Your task to perform on an android device: turn notification dots off Image 0: 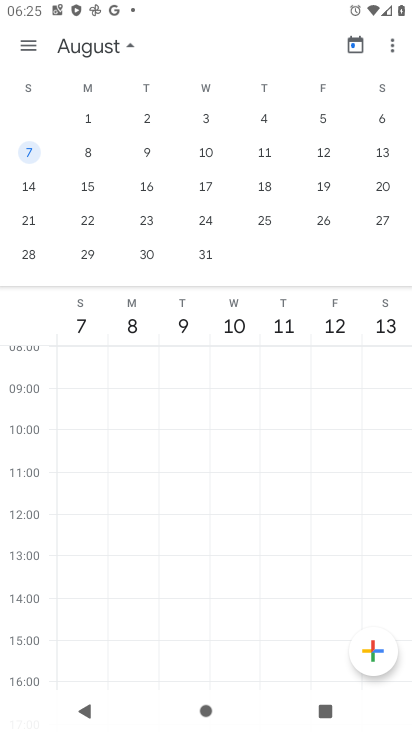
Step 0: press back button
Your task to perform on an android device: turn notification dots off Image 1: 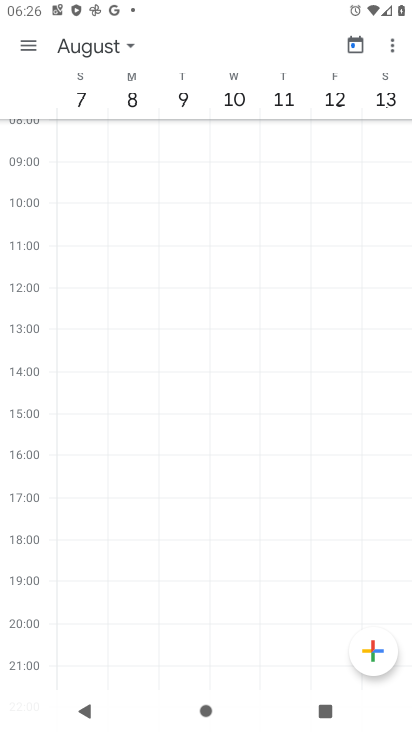
Step 1: press home button
Your task to perform on an android device: turn notification dots off Image 2: 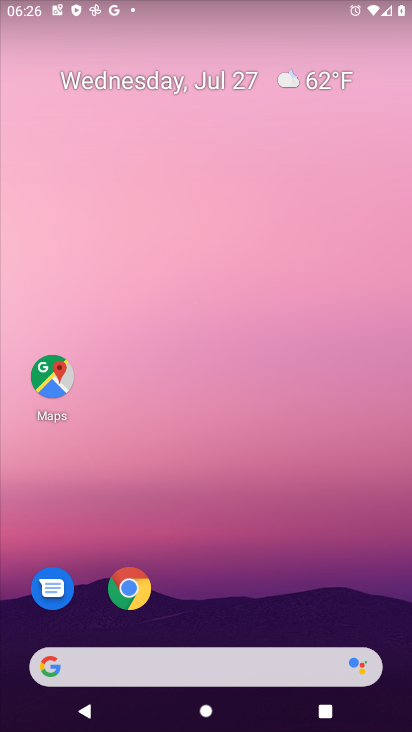
Step 2: drag from (182, 596) to (201, 68)
Your task to perform on an android device: turn notification dots off Image 3: 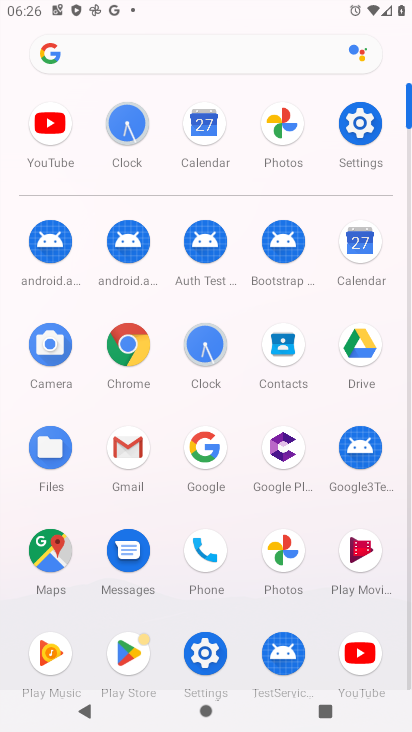
Step 3: click (356, 140)
Your task to perform on an android device: turn notification dots off Image 4: 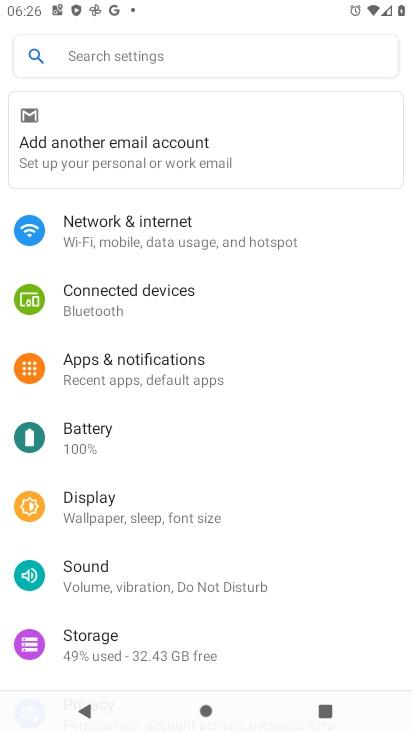
Step 4: click (110, 369)
Your task to perform on an android device: turn notification dots off Image 5: 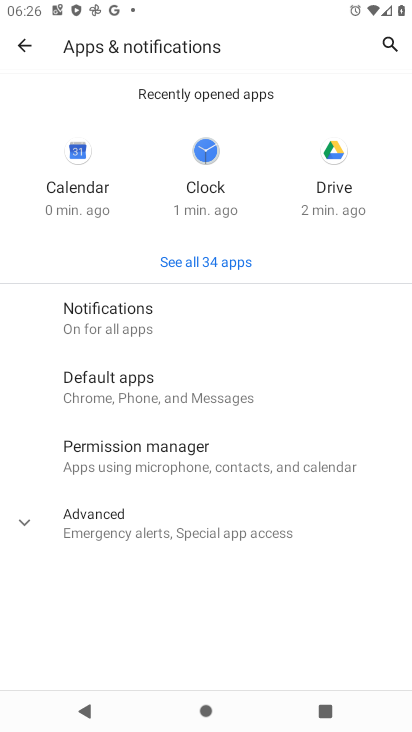
Step 5: click (118, 318)
Your task to perform on an android device: turn notification dots off Image 6: 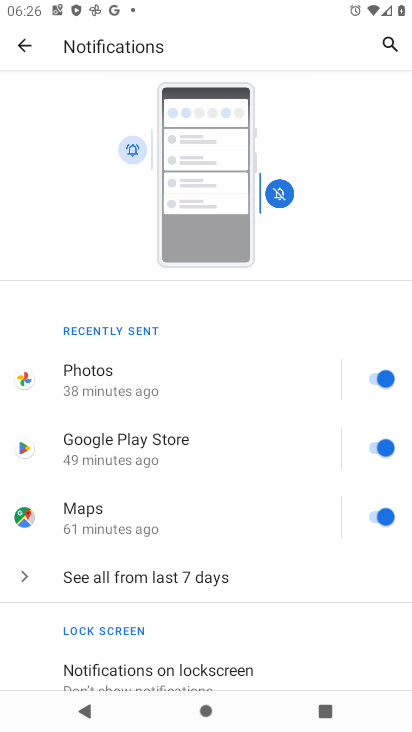
Step 6: drag from (117, 568) to (124, 495)
Your task to perform on an android device: turn notification dots off Image 7: 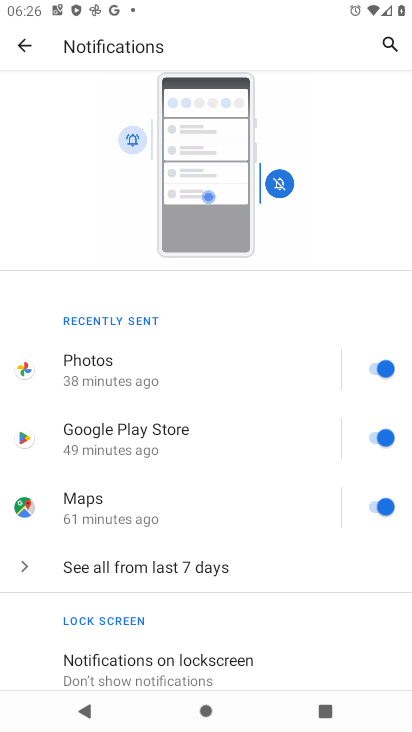
Step 7: drag from (183, 614) to (185, 421)
Your task to perform on an android device: turn notification dots off Image 8: 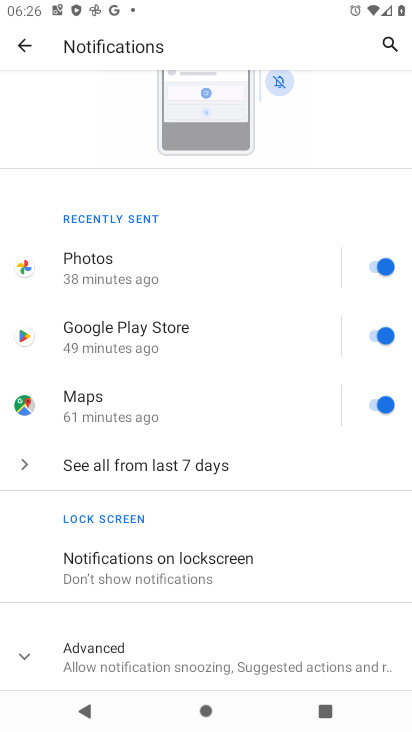
Step 8: click (109, 660)
Your task to perform on an android device: turn notification dots off Image 9: 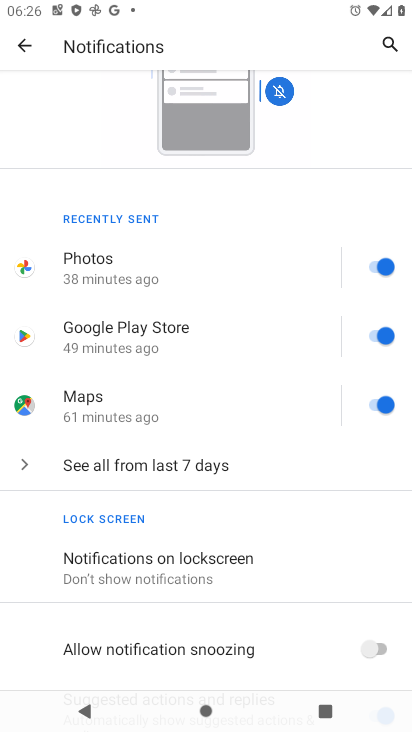
Step 9: drag from (196, 612) to (215, 403)
Your task to perform on an android device: turn notification dots off Image 10: 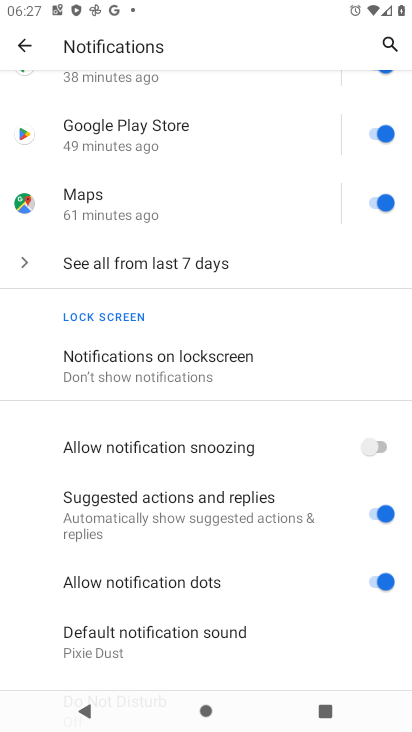
Step 10: click (371, 582)
Your task to perform on an android device: turn notification dots off Image 11: 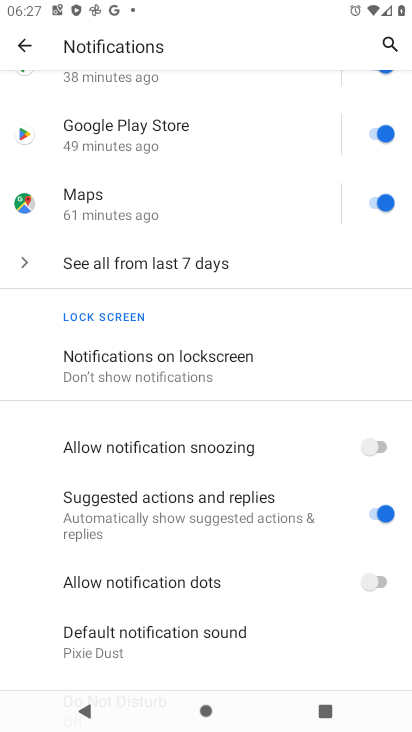
Step 11: task complete